Your task to perform on an android device: Turn off the flashlight Image 0: 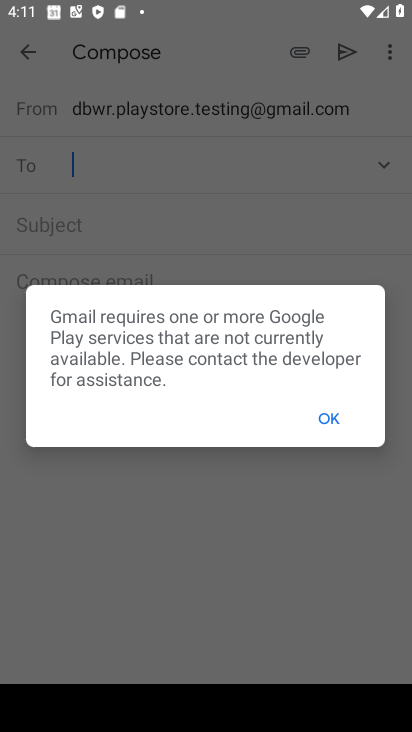
Step 0: click (317, 419)
Your task to perform on an android device: Turn off the flashlight Image 1: 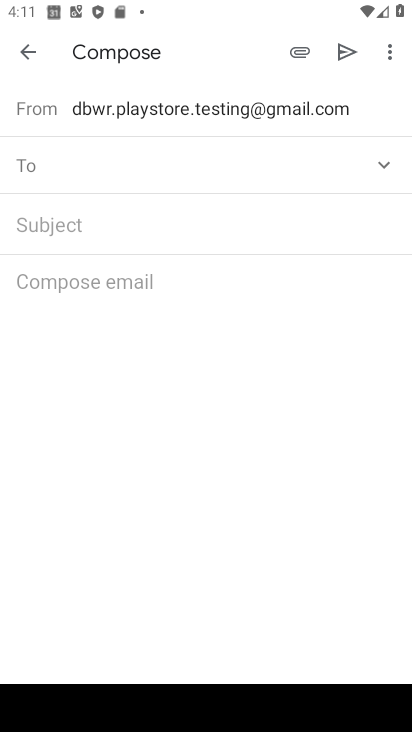
Step 1: click (16, 52)
Your task to perform on an android device: Turn off the flashlight Image 2: 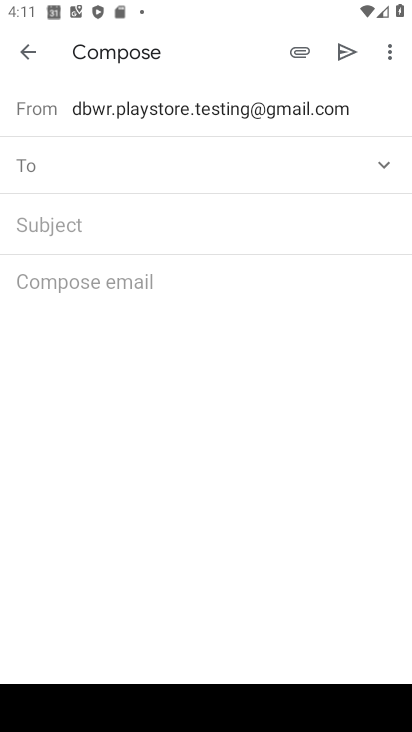
Step 2: click (14, 51)
Your task to perform on an android device: Turn off the flashlight Image 3: 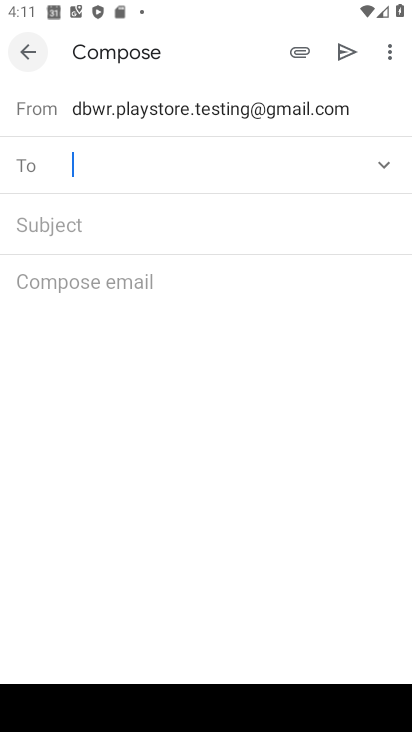
Step 3: click (14, 51)
Your task to perform on an android device: Turn off the flashlight Image 4: 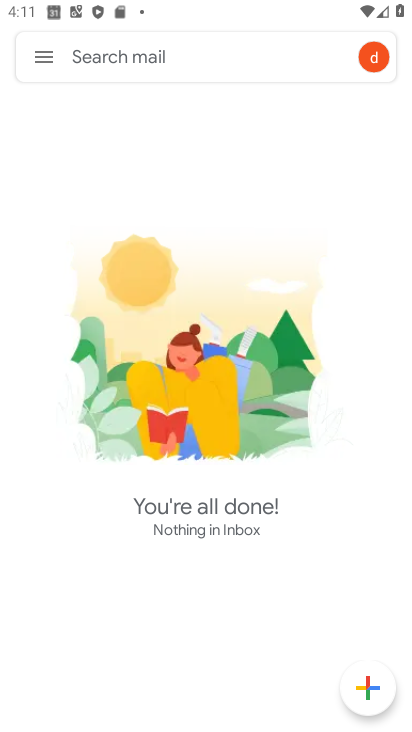
Step 4: task complete